Your task to perform on an android device: find snoozed emails in the gmail app Image 0: 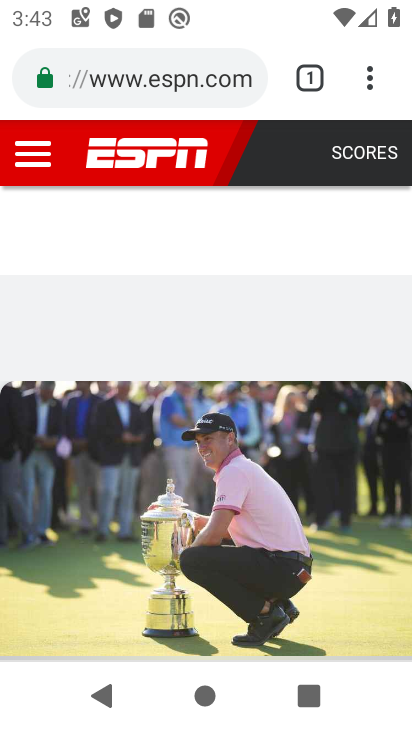
Step 0: press home button
Your task to perform on an android device: find snoozed emails in the gmail app Image 1: 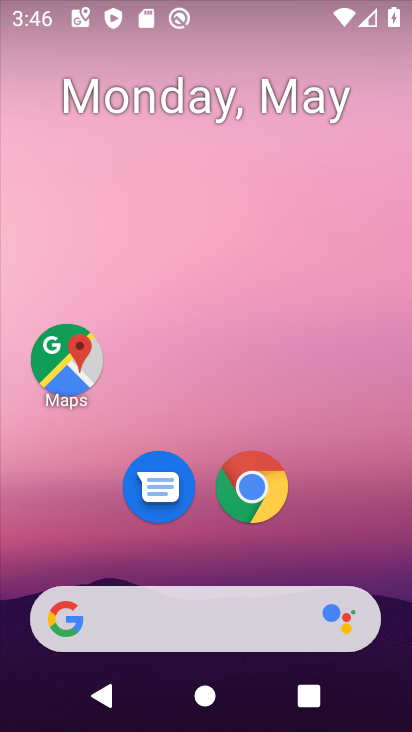
Step 1: drag from (205, 582) to (263, 289)
Your task to perform on an android device: find snoozed emails in the gmail app Image 2: 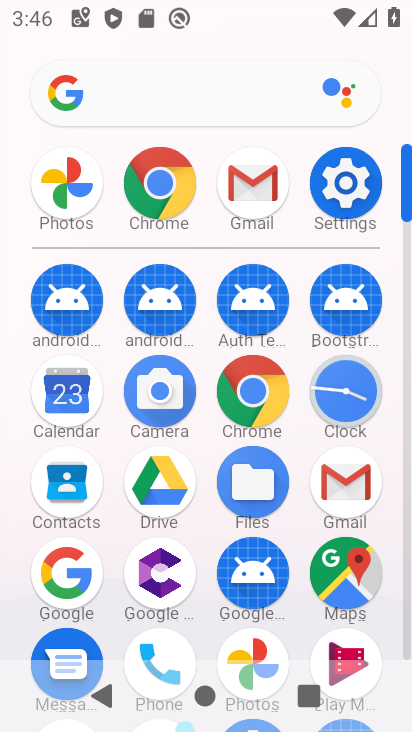
Step 2: click (248, 189)
Your task to perform on an android device: find snoozed emails in the gmail app Image 3: 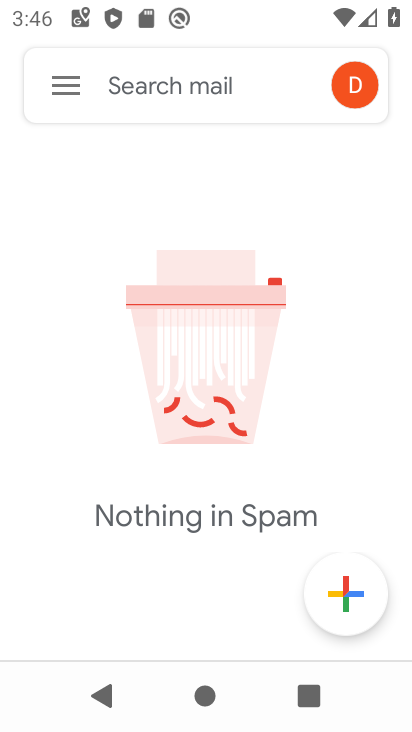
Step 3: click (76, 87)
Your task to perform on an android device: find snoozed emails in the gmail app Image 4: 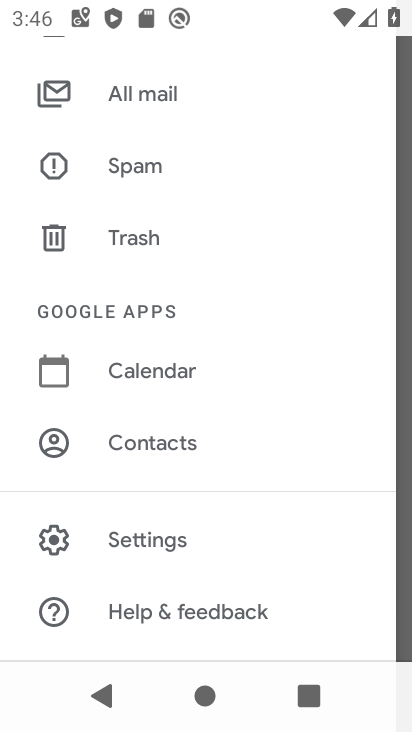
Step 4: drag from (142, 170) to (168, 723)
Your task to perform on an android device: find snoozed emails in the gmail app Image 5: 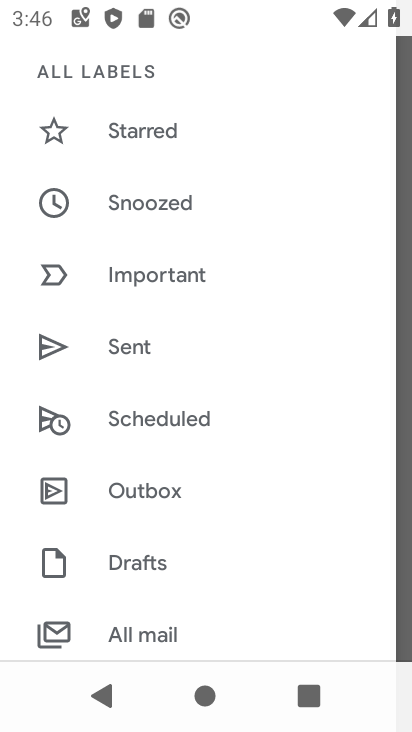
Step 5: click (177, 204)
Your task to perform on an android device: find snoozed emails in the gmail app Image 6: 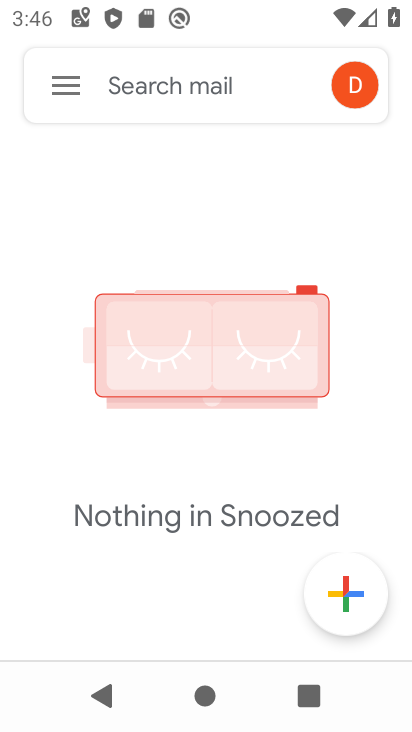
Step 6: task complete